Your task to perform on an android device: find snoozed emails in the gmail app Image 0: 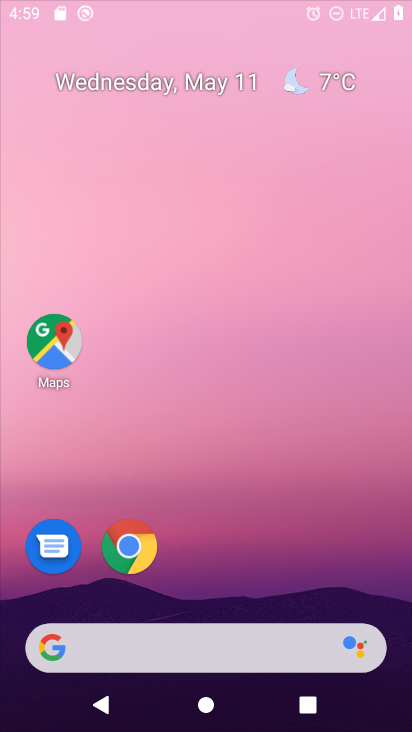
Step 0: drag from (307, 395) to (360, 34)
Your task to perform on an android device: find snoozed emails in the gmail app Image 1: 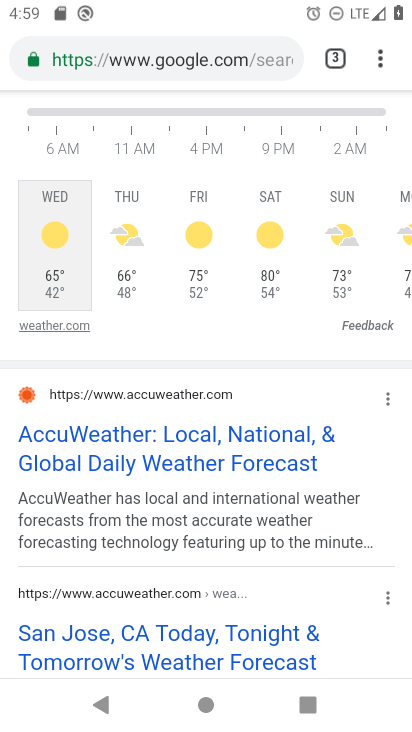
Step 1: press home button
Your task to perform on an android device: find snoozed emails in the gmail app Image 2: 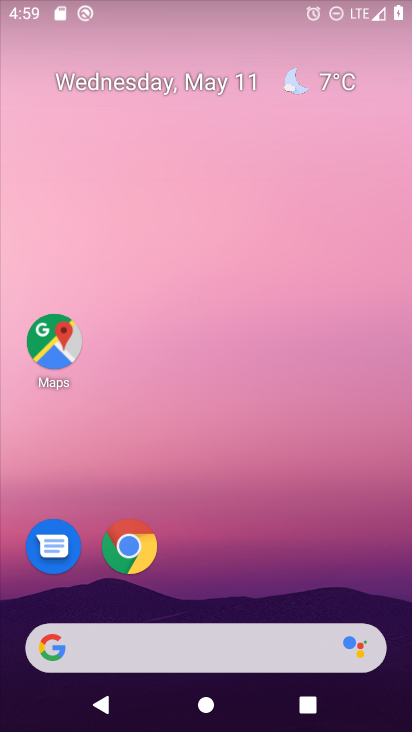
Step 2: drag from (214, 643) to (243, 4)
Your task to perform on an android device: find snoozed emails in the gmail app Image 3: 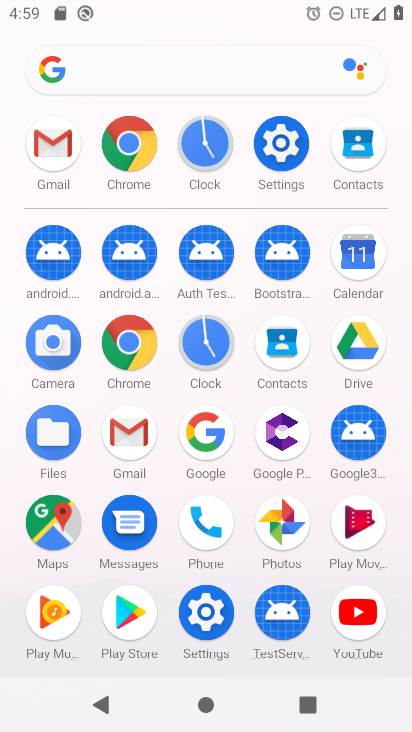
Step 3: click (136, 432)
Your task to perform on an android device: find snoozed emails in the gmail app Image 4: 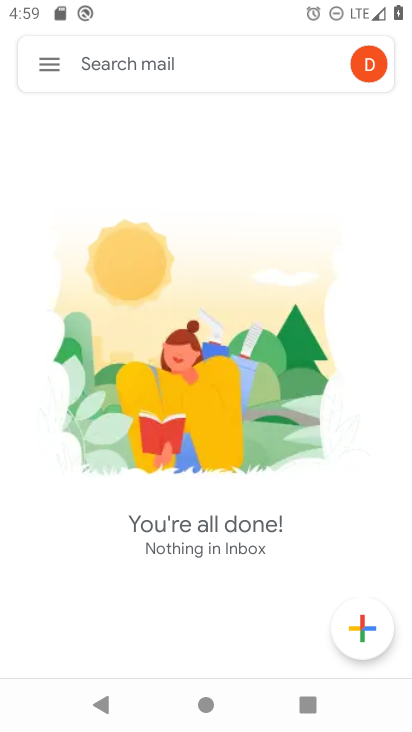
Step 4: click (41, 62)
Your task to perform on an android device: find snoozed emails in the gmail app Image 5: 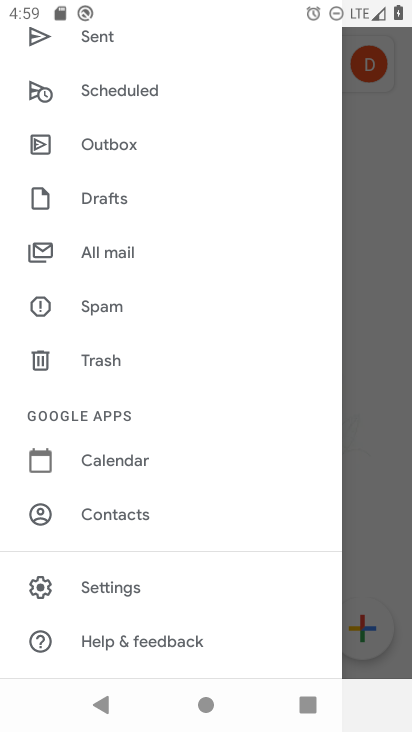
Step 5: drag from (168, 179) to (231, 647)
Your task to perform on an android device: find snoozed emails in the gmail app Image 6: 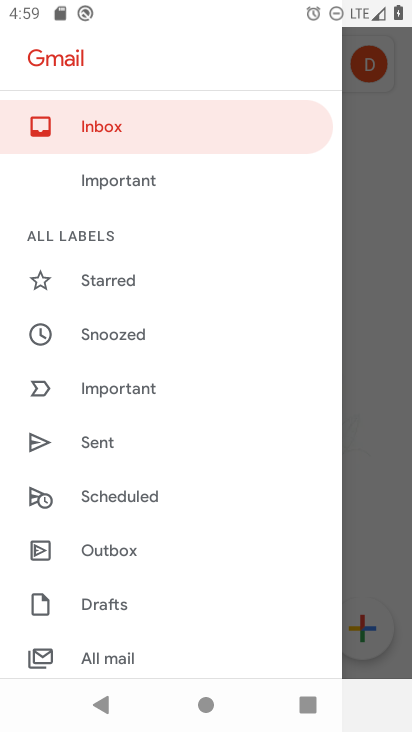
Step 6: click (129, 338)
Your task to perform on an android device: find snoozed emails in the gmail app Image 7: 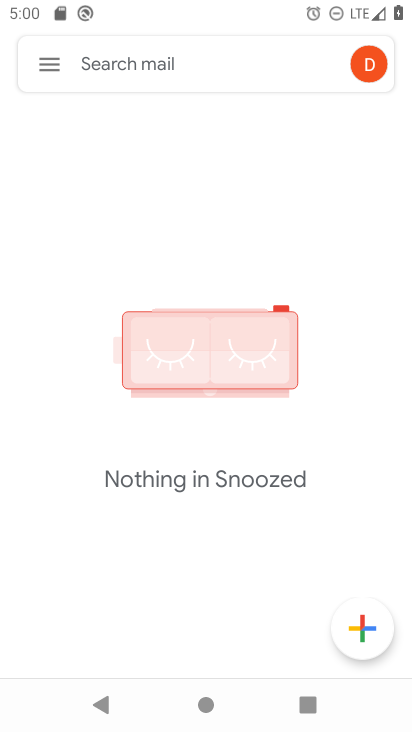
Step 7: task complete